Your task to perform on an android device: Go to privacy settings Image 0: 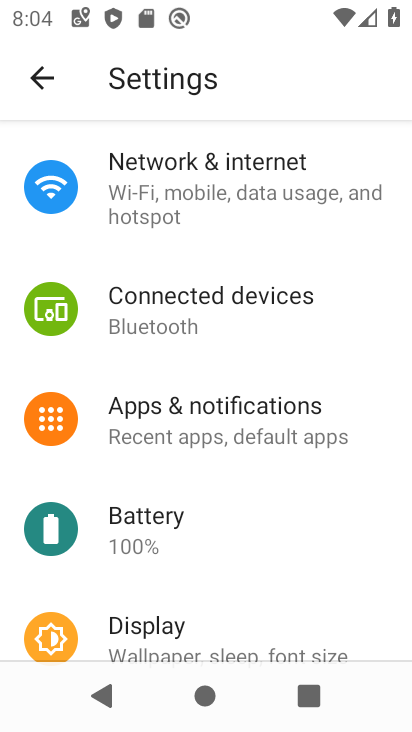
Step 0: drag from (376, 563) to (373, 383)
Your task to perform on an android device: Go to privacy settings Image 1: 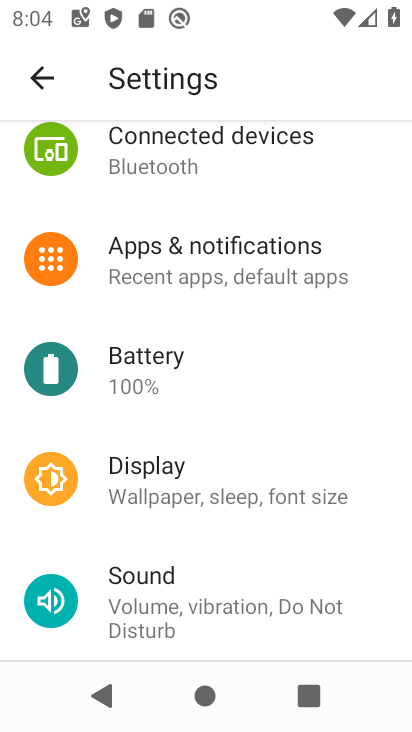
Step 1: drag from (364, 576) to (379, 412)
Your task to perform on an android device: Go to privacy settings Image 2: 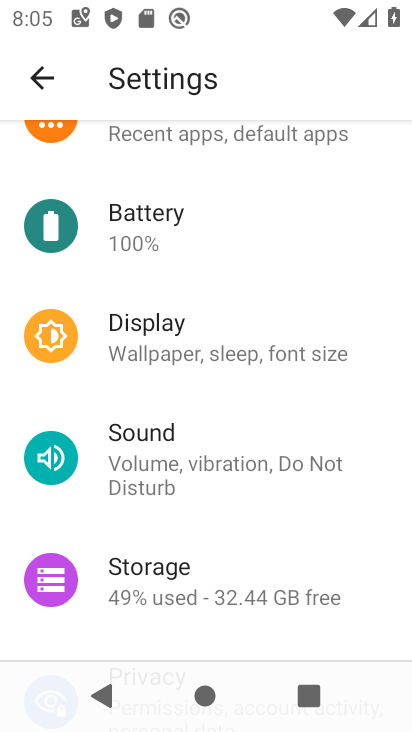
Step 2: drag from (370, 550) to (355, 374)
Your task to perform on an android device: Go to privacy settings Image 3: 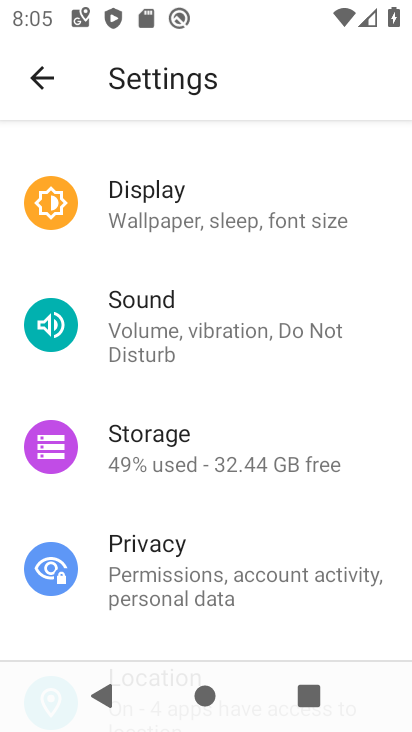
Step 3: drag from (336, 606) to (356, 440)
Your task to perform on an android device: Go to privacy settings Image 4: 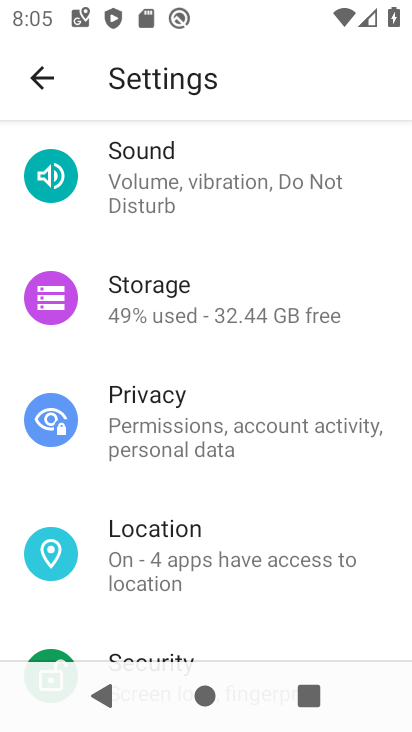
Step 4: drag from (350, 606) to (361, 348)
Your task to perform on an android device: Go to privacy settings Image 5: 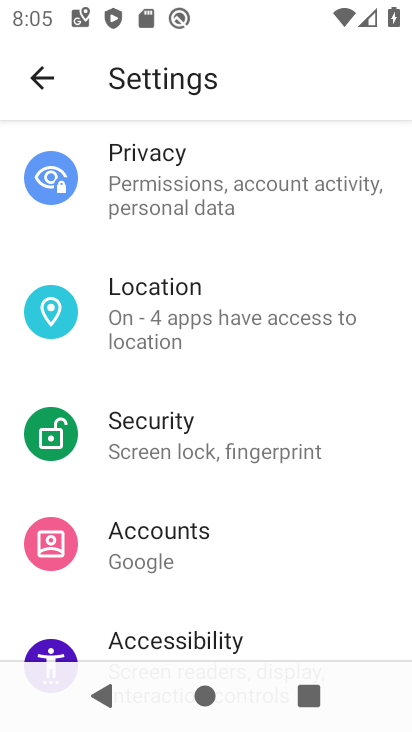
Step 5: drag from (351, 567) to (352, 421)
Your task to perform on an android device: Go to privacy settings Image 6: 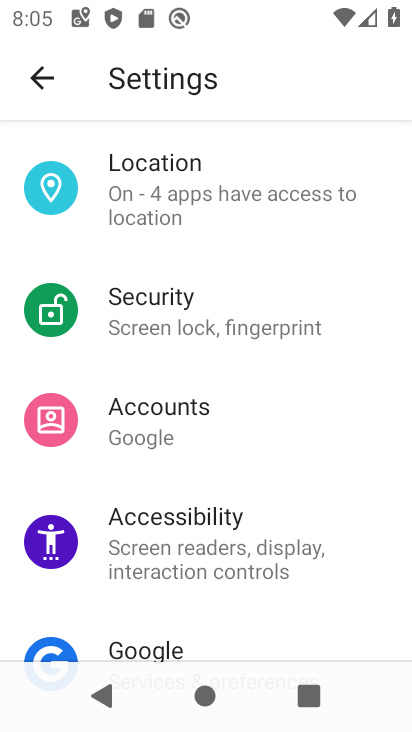
Step 6: drag from (352, 594) to (352, 370)
Your task to perform on an android device: Go to privacy settings Image 7: 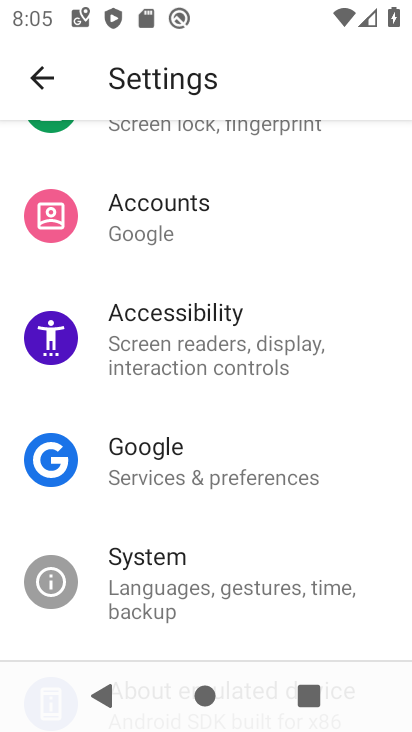
Step 7: drag from (370, 444) to (356, 320)
Your task to perform on an android device: Go to privacy settings Image 8: 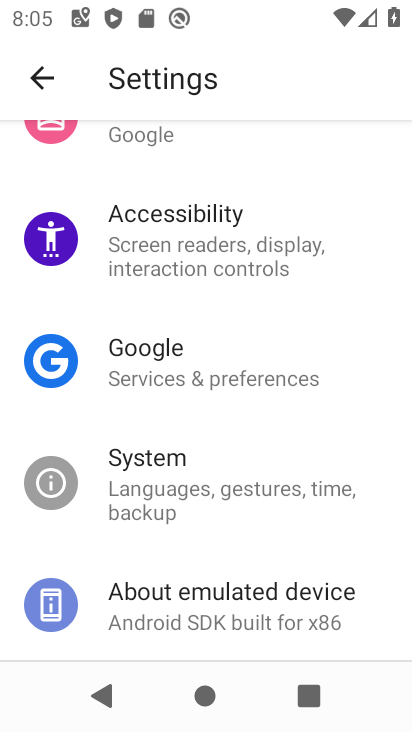
Step 8: drag from (358, 296) to (365, 462)
Your task to perform on an android device: Go to privacy settings Image 9: 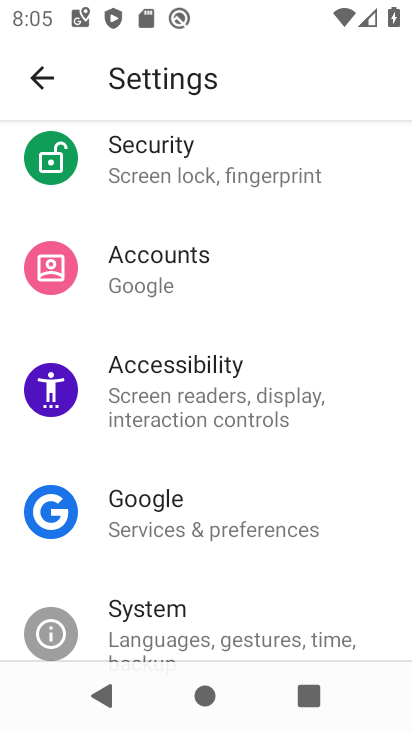
Step 9: drag from (357, 284) to (366, 436)
Your task to perform on an android device: Go to privacy settings Image 10: 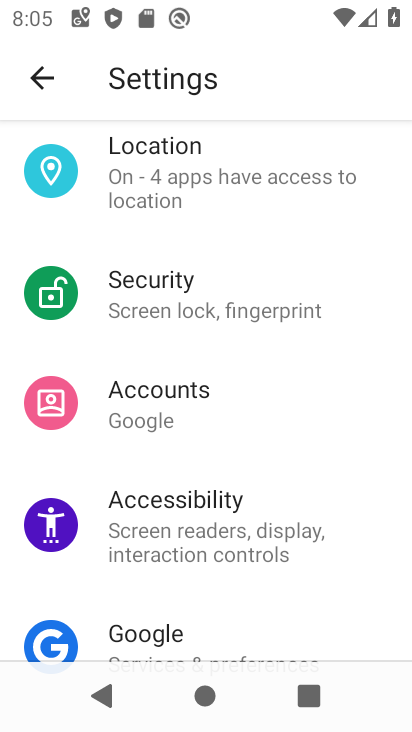
Step 10: drag from (348, 303) to (351, 467)
Your task to perform on an android device: Go to privacy settings Image 11: 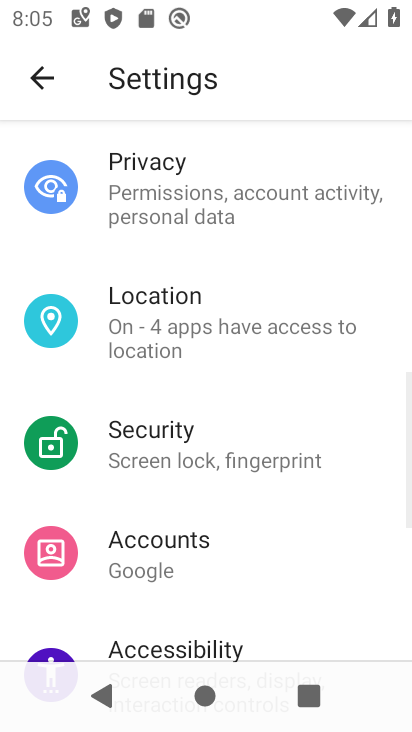
Step 11: drag from (355, 241) to (373, 465)
Your task to perform on an android device: Go to privacy settings Image 12: 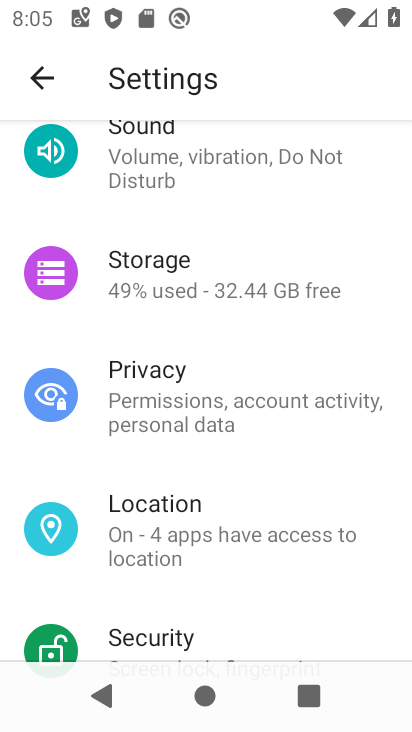
Step 12: click (274, 406)
Your task to perform on an android device: Go to privacy settings Image 13: 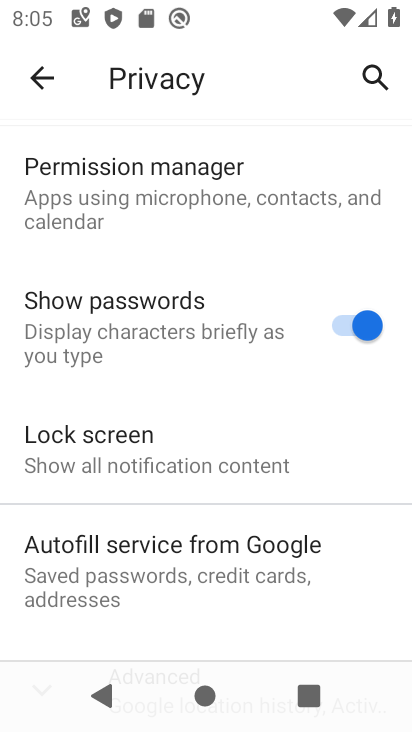
Step 13: task complete